Your task to perform on an android device: What's the weather today? Image 0: 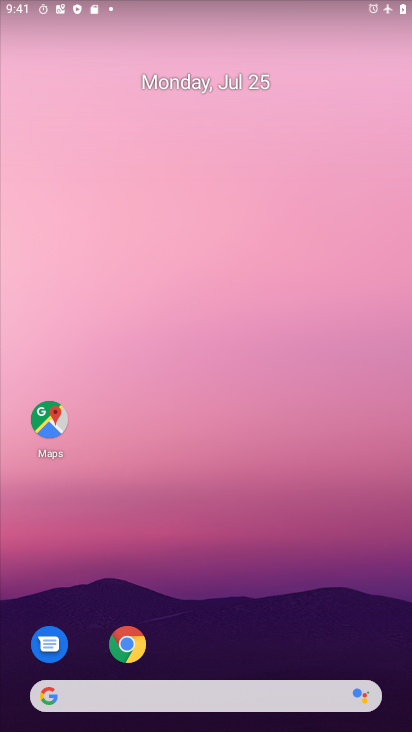
Step 0: drag from (224, 615) to (231, 126)
Your task to perform on an android device: What's the weather today? Image 1: 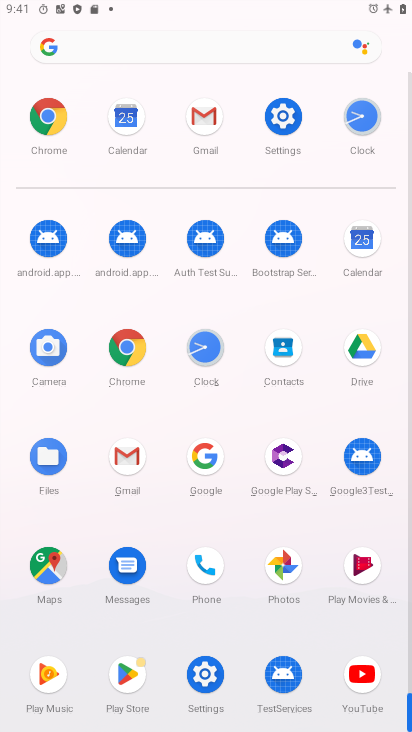
Step 1: click (142, 360)
Your task to perform on an android device: What's the weather today? Image 2: 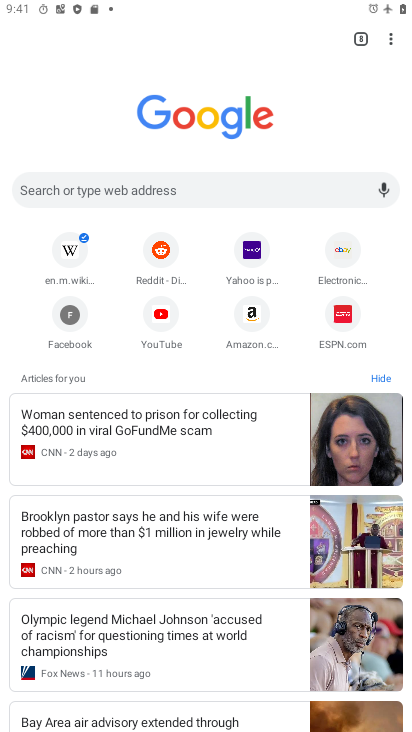
Step 2: click (227, 201)
Your task to perform on an android device: What's the weather today? Image 3: 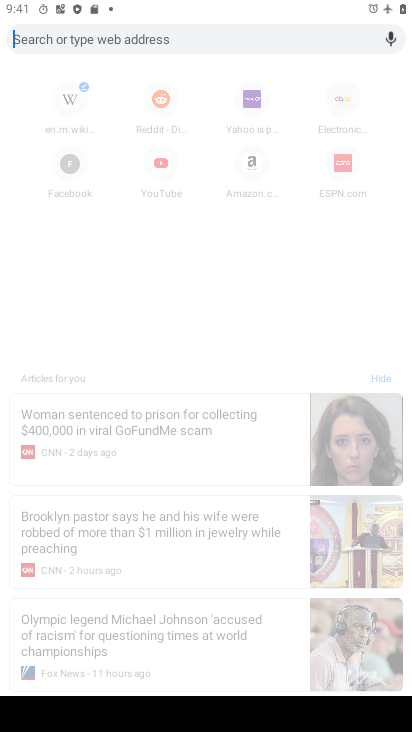
Step 3: type "weather"
Your task to perform on an android device: What's the weather today? Image 4: 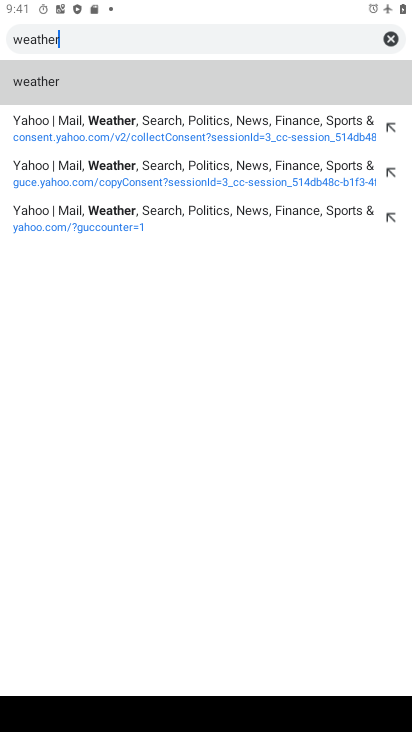
Step 4: click (111, 77)
Your task to perform on an android device: What's the weather today? Image 5: 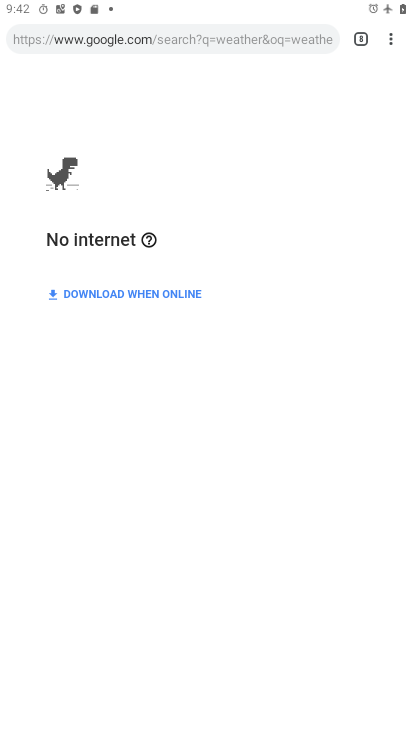
Step 5: task complete